Your task to perform on an android device: Empty the shopping cart on target. Search for "usb-a to usb-b" on target, select the first entry, add it to the cart, then select checkout. Image 0: 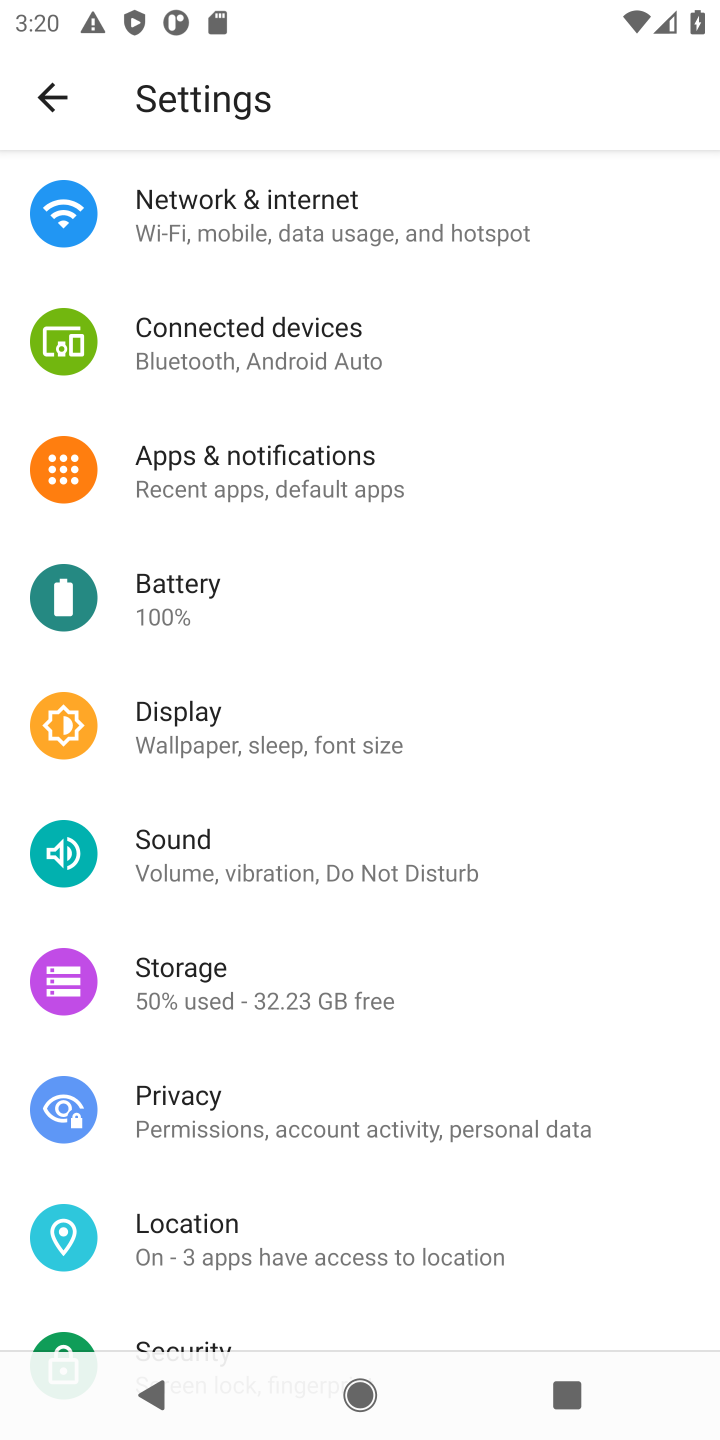
Step 0: press home button
Your task to perform on an android device: Empty the shopping cart on target. Search for "usb-a to usb-b" on target, select the first entry, add it to the cart, then select checkout. Image 1: 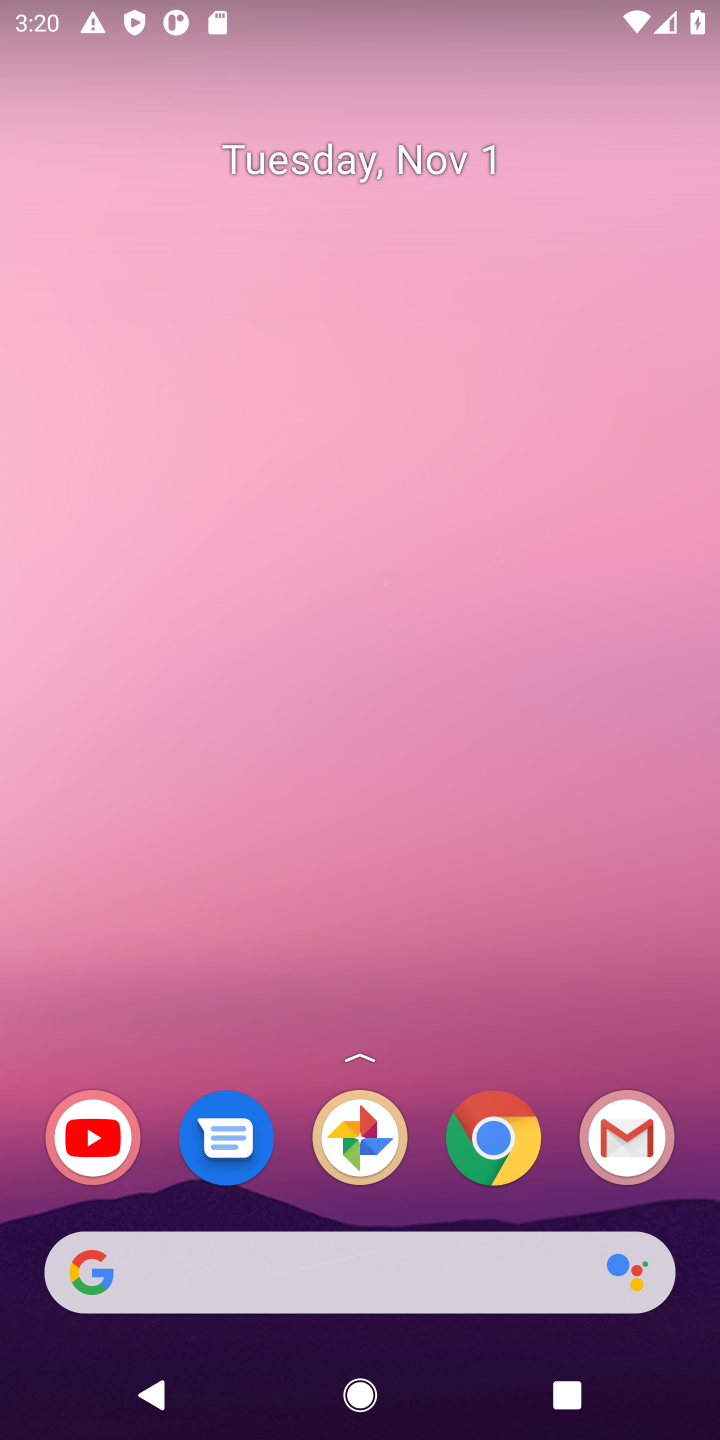
Step 1: click (499, 1139)
Your task to perform on an android device: Empty the shopping cart on target. Search for "usb-a to usb-b" on target, select the first entry, add it to the cart, then select checkout. Image 2: 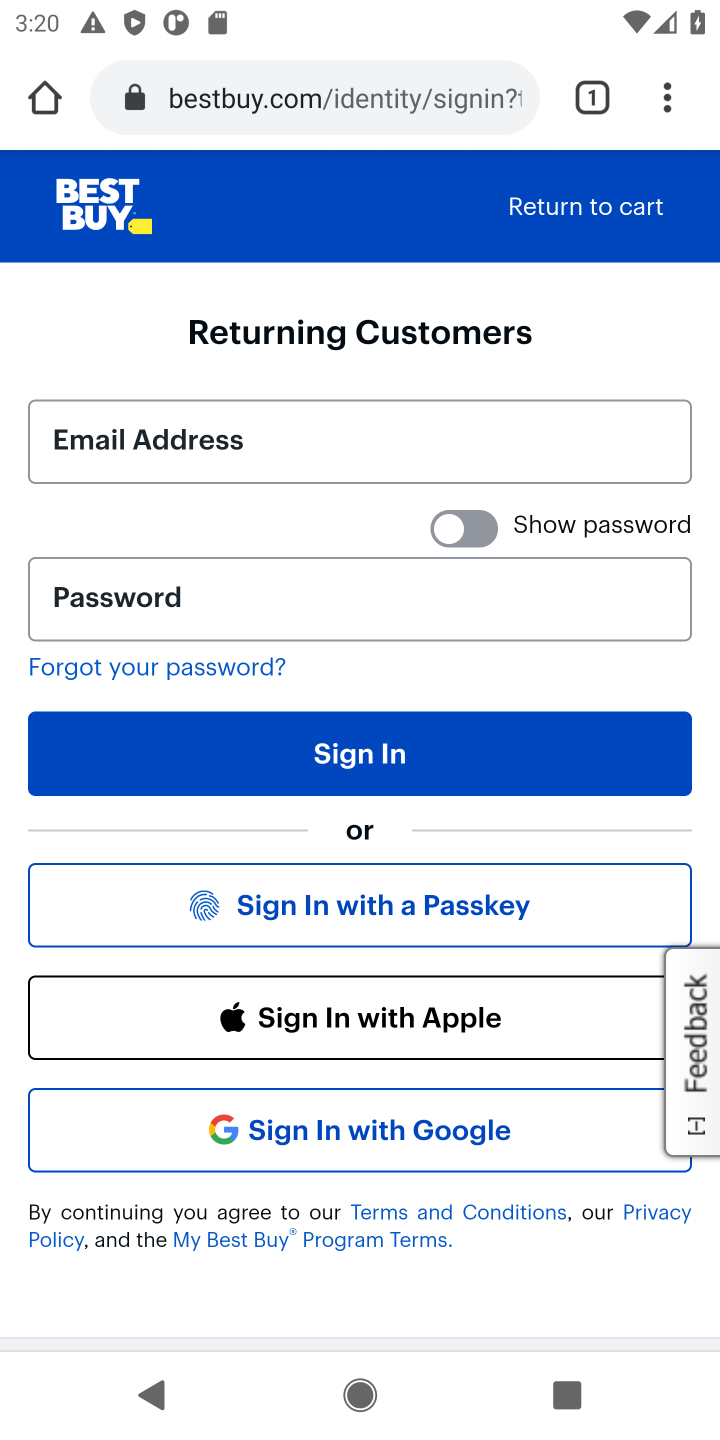
Step 2: click (408, 85)
Your task to perform on an android device: Empty the shopping cart on target. Search for "usb-a to usb-b" on target, select the first entry, add it to the cart, then select checkout. Image 3: 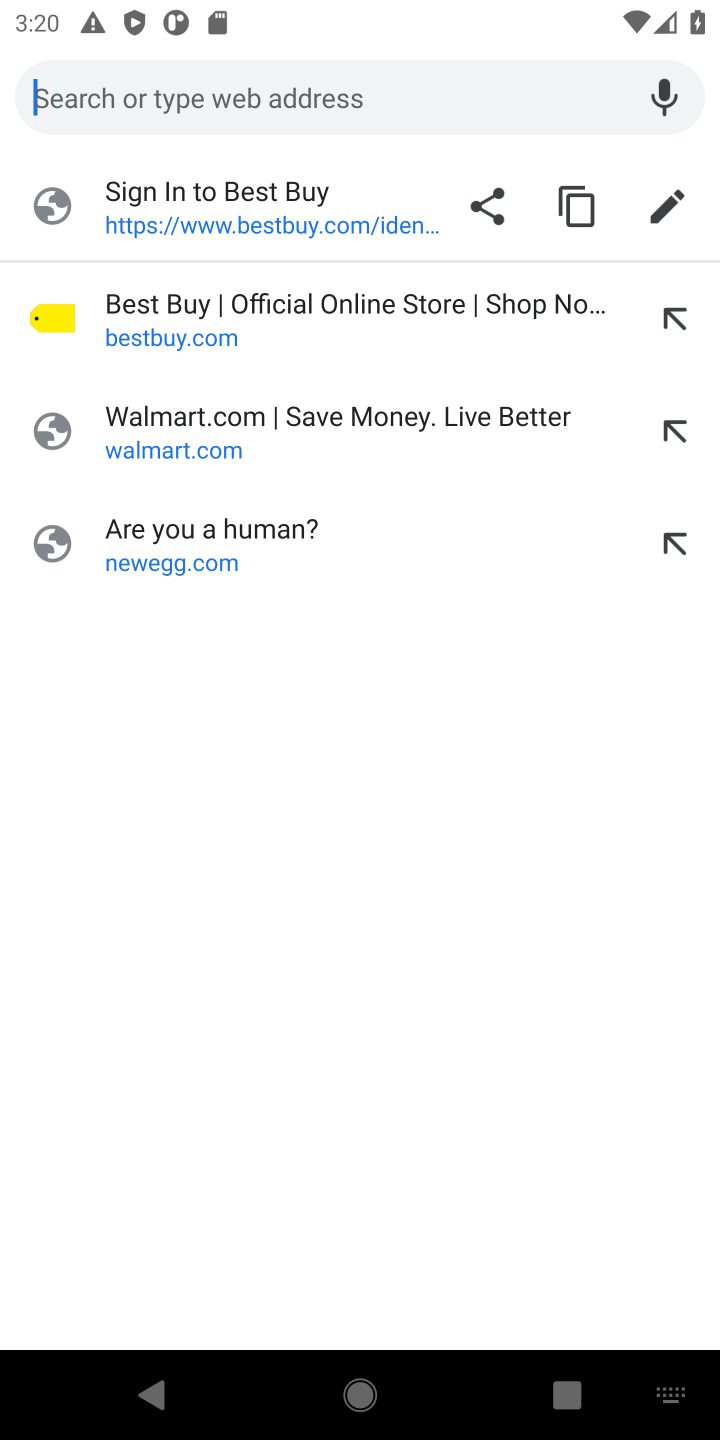
Step 3: type "target"
Your task to perform on an android device: Empty the shopping cart on target. Search for "usb-a to usb-b" on target, select the first entry, add it to the cart, then select checkout. Image 4: 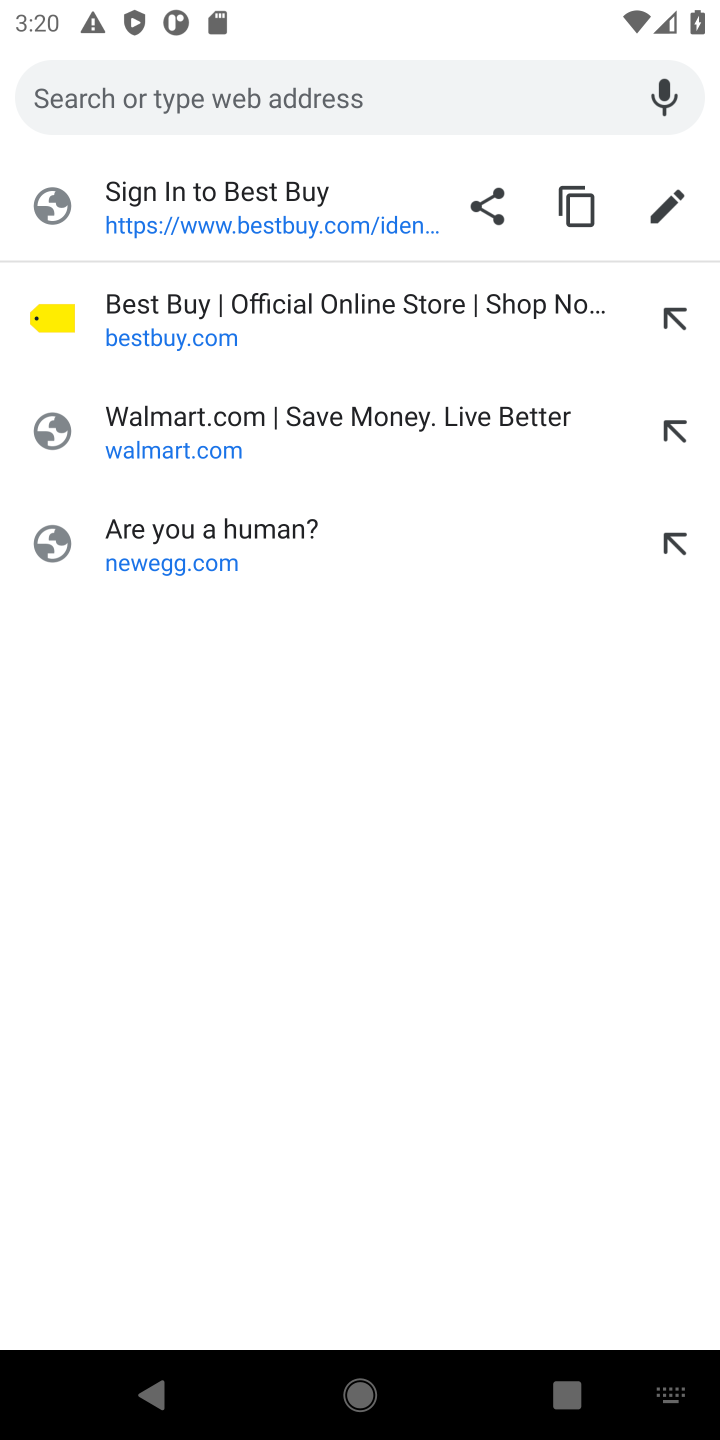
Step 4: click (186, 84)
Your task to perform on an android device: Empty the shopping cart on target. Search for "usb-a to usb-b" on target, select the first entry, add it to the cart, then select checkout. Image 5: 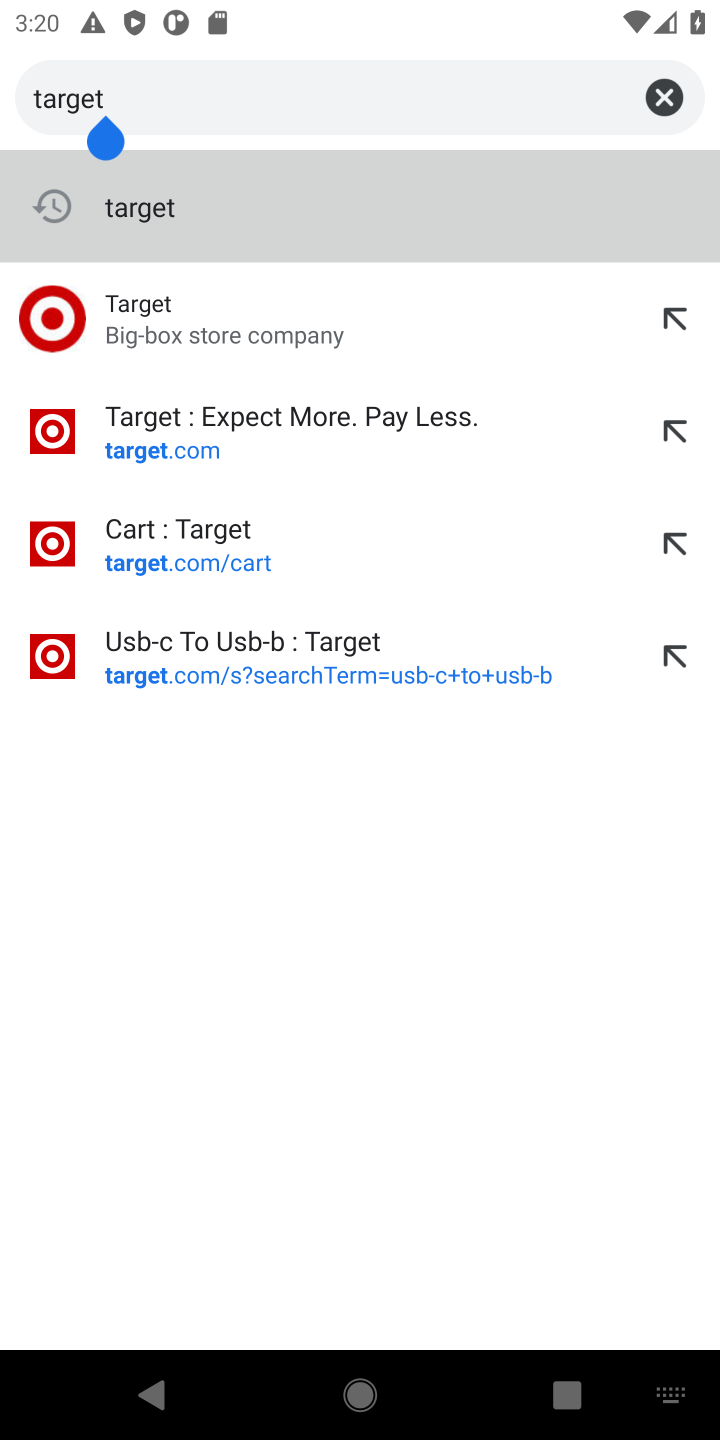
Step 5: click (169, 201)
Your task to perform on an android device: Empty the shopping cart on target. Search for "usb-a to usb-b" on target, select the first entry, add it to the cart, then select checkout. Image 6: 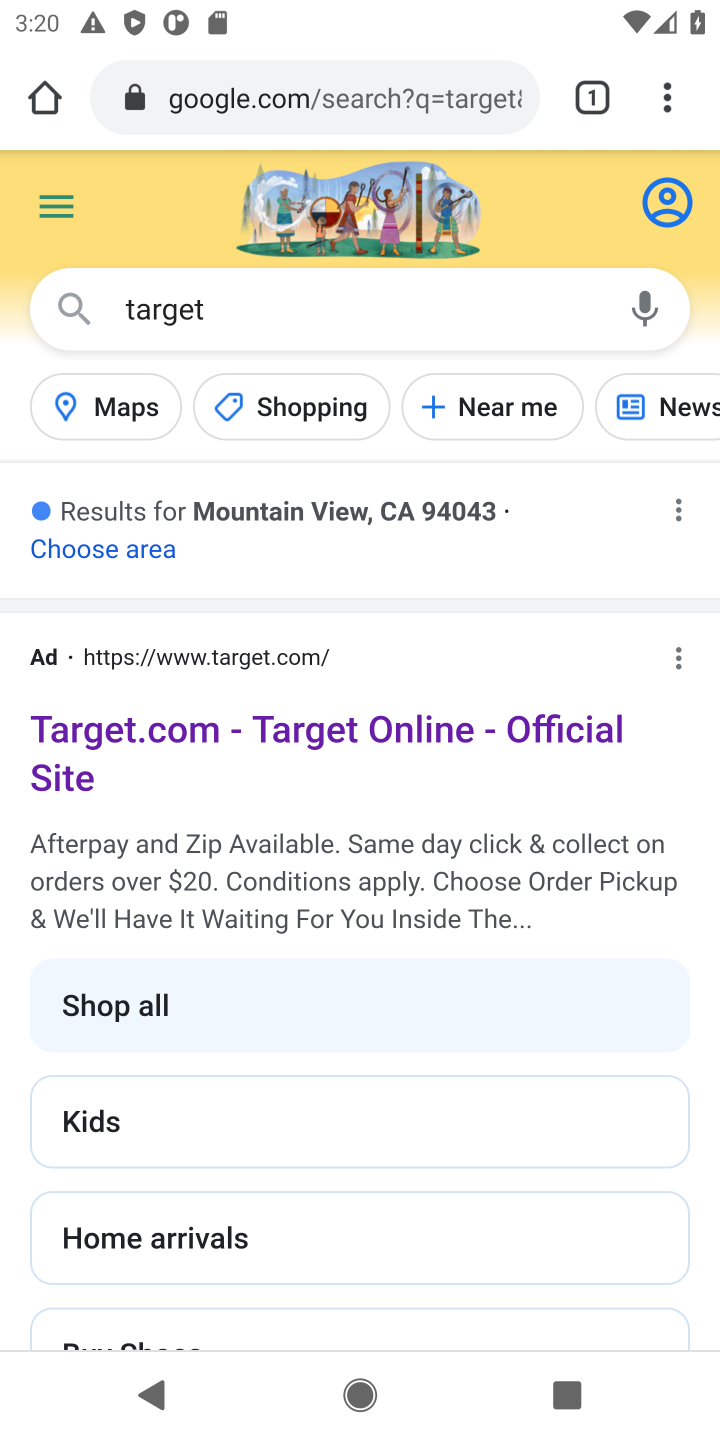
Step 6: click (335, 750)
Your task to perform on an android device: Empty the shopping cart on target. Search for "usb-a to usb-b" on target, select the first entry, add it to the cart, then select checkout. Image 7: 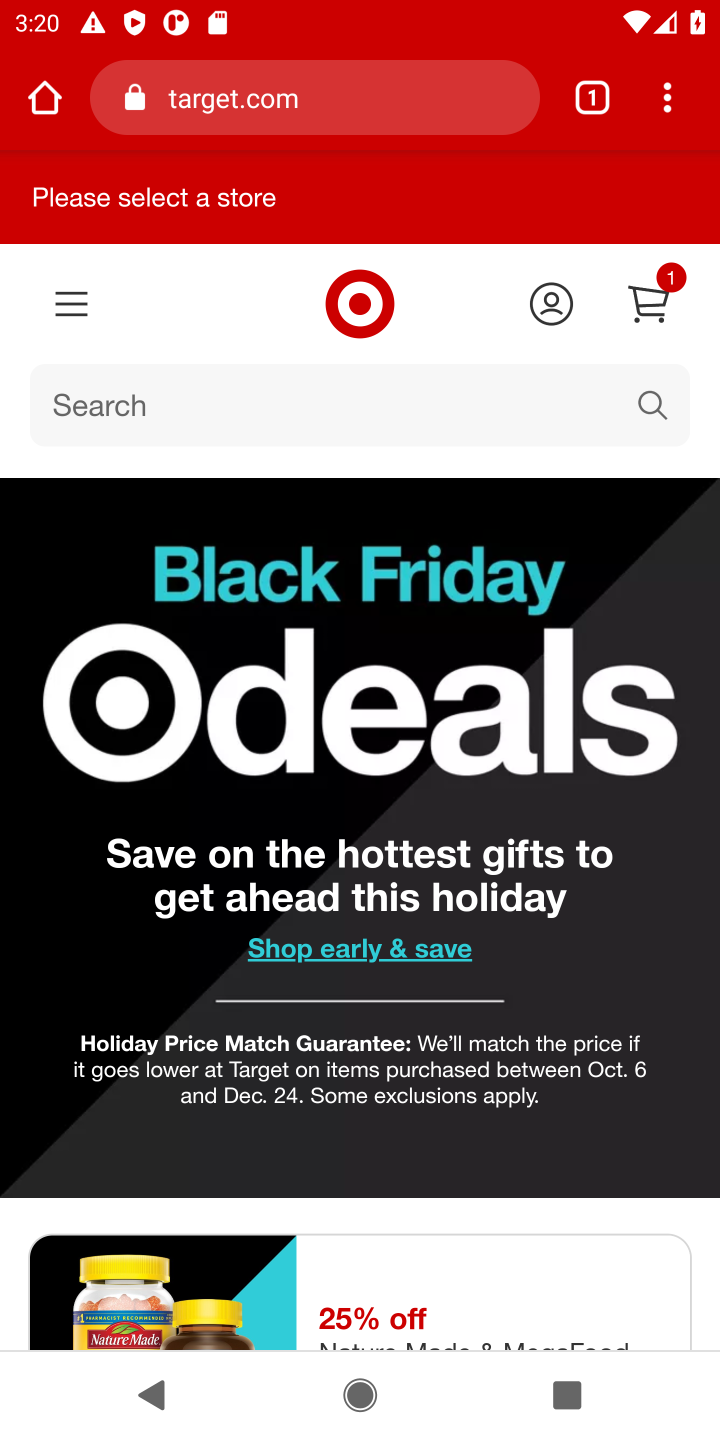
Step 7: click (328, 404)
Your task to perform on an android device: Empty the shopping cart on target. Search for "usb-a to usb-b" on target, select the first entry, add it to the cart, then select checkout. Image 8: 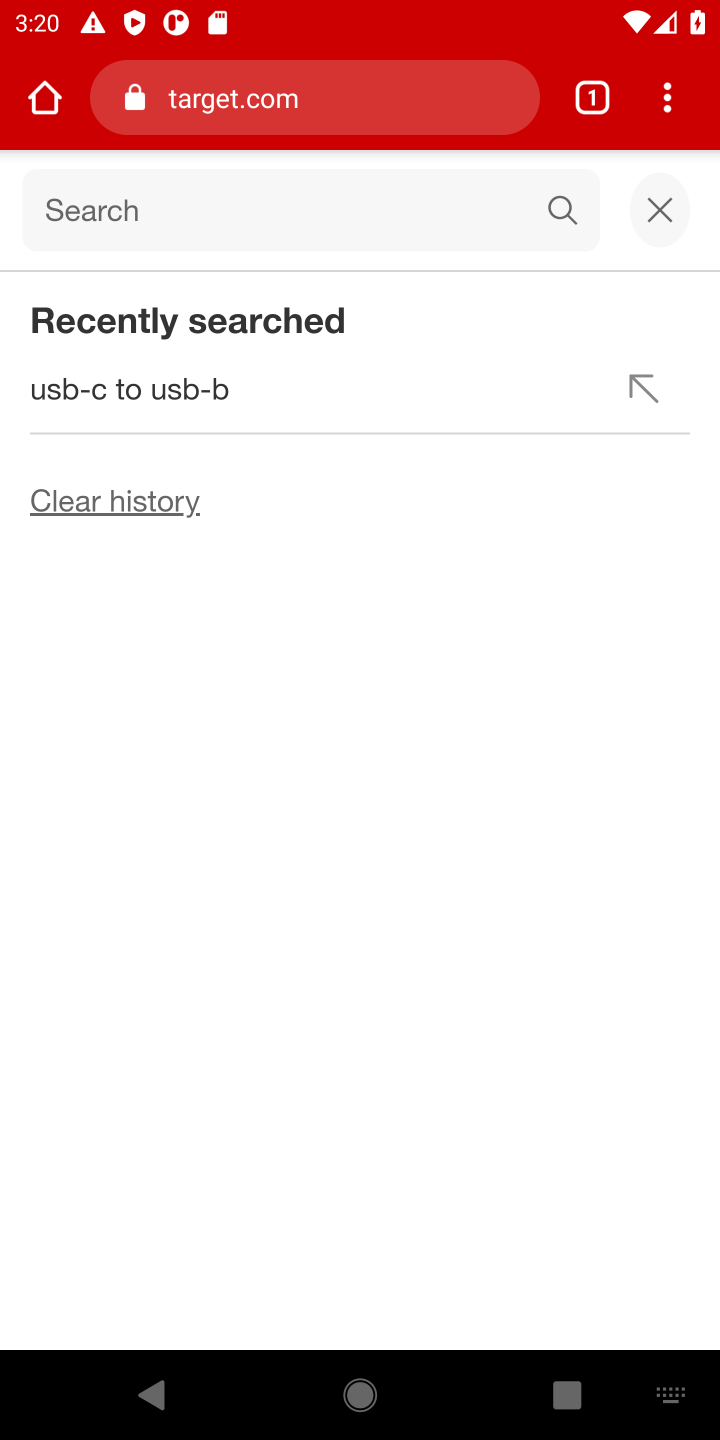
Step 8: type "usb-a to usb-b"
Your task to perform on an android device: Empty the shopping cart on target. Search for "usb-a to usb-b" on target, select the first entry, add it to the cart, then select checkout. Image 9: 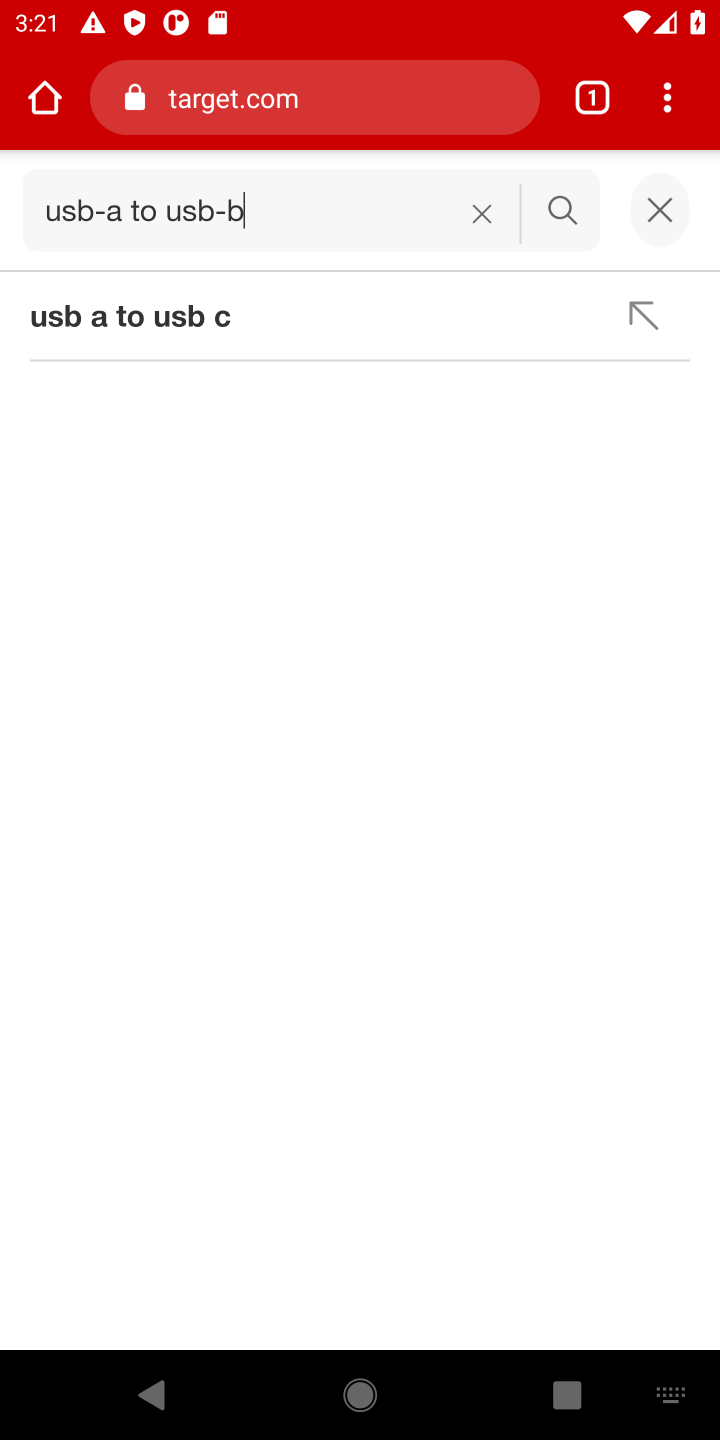
Step 9: click (562, 207)
Your task to perform on an android device: Empty the shopping cart on target. Search for "usb-a to usb-b" on target, select the first entry, add it to the cart, then select checkout. Image 10: 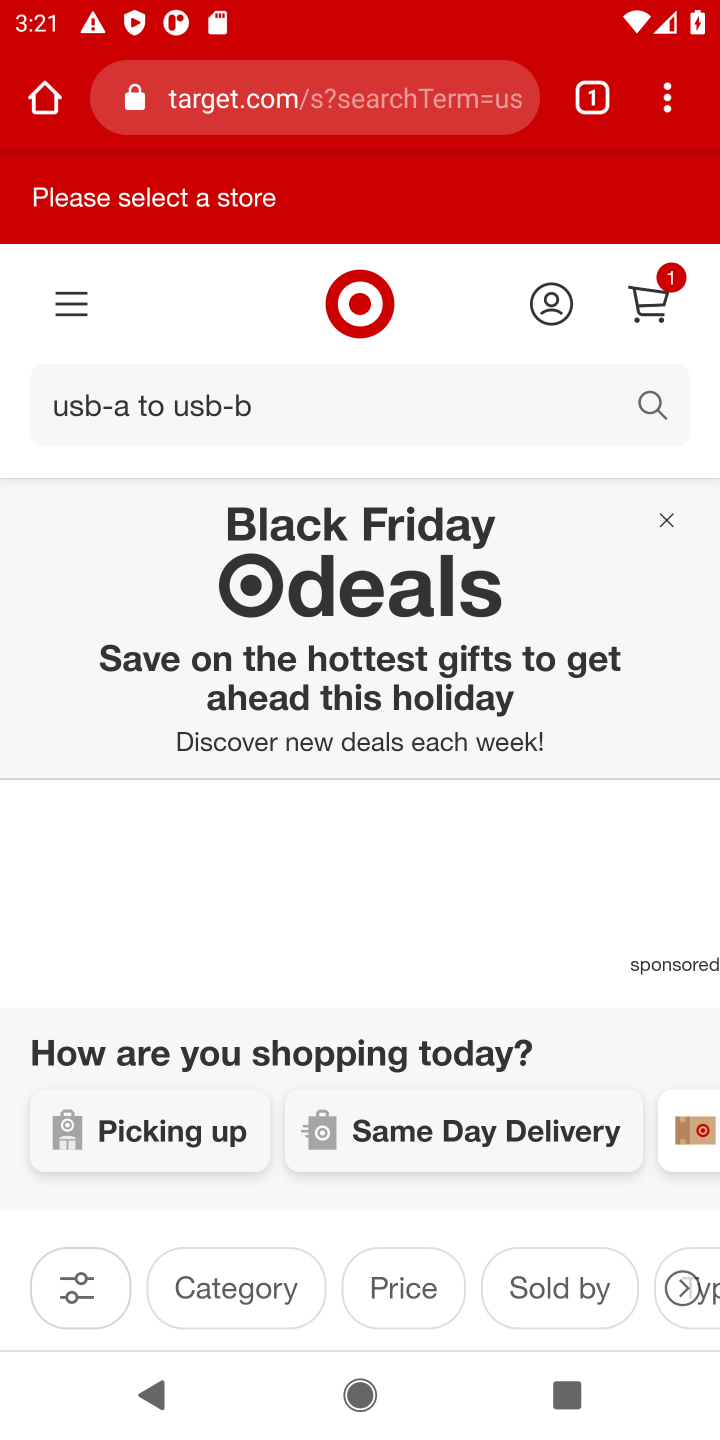
Step 10: click (644, 287)
Your task to perform on an android device: Empty the shopping cart on target. Search for "usb-a to usb-b" on target, select the first entry, add it to the cart, then select checkout. Image 11: 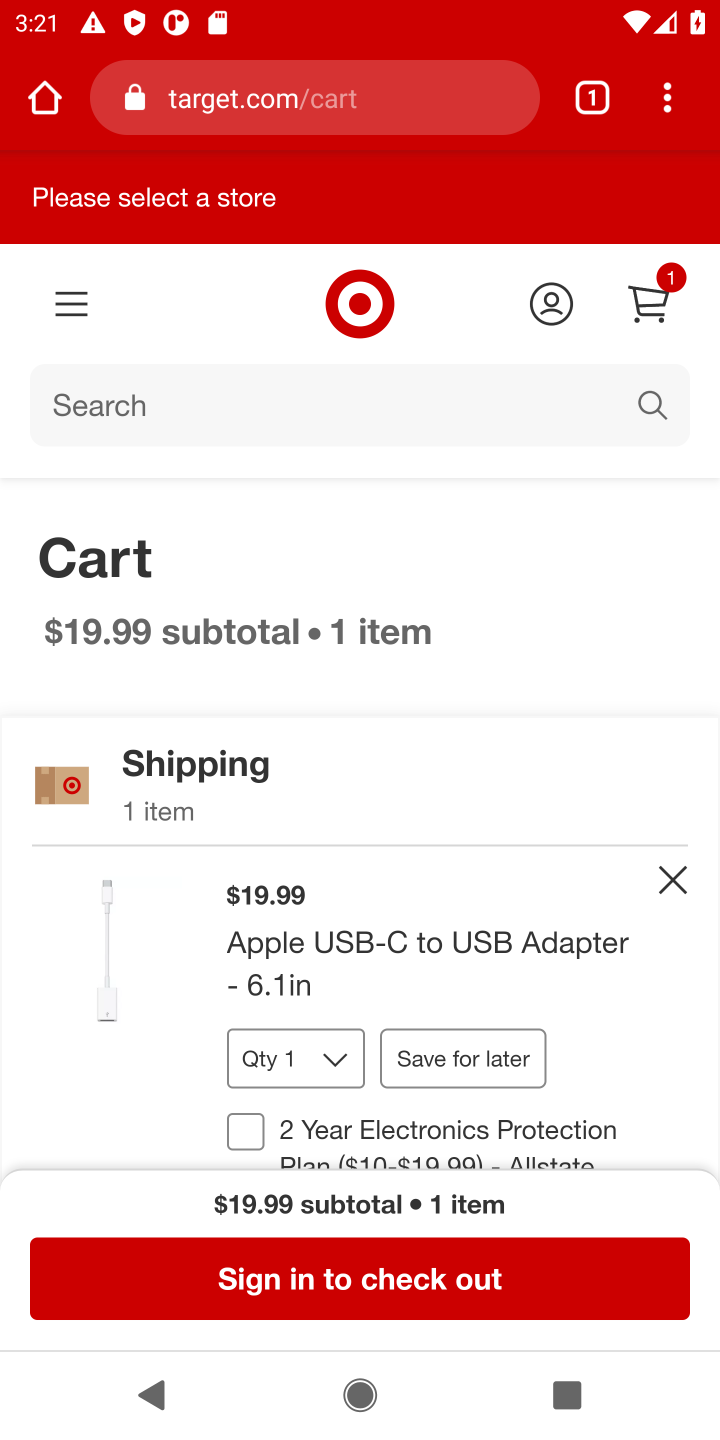
Step 11: click (671, 883)
Your task to perform on an android device: Empty the shopping cart on target. Search for "usb-a to usb-b" on target, select the first entry, add it to the cart, then select checkout. Image 12: 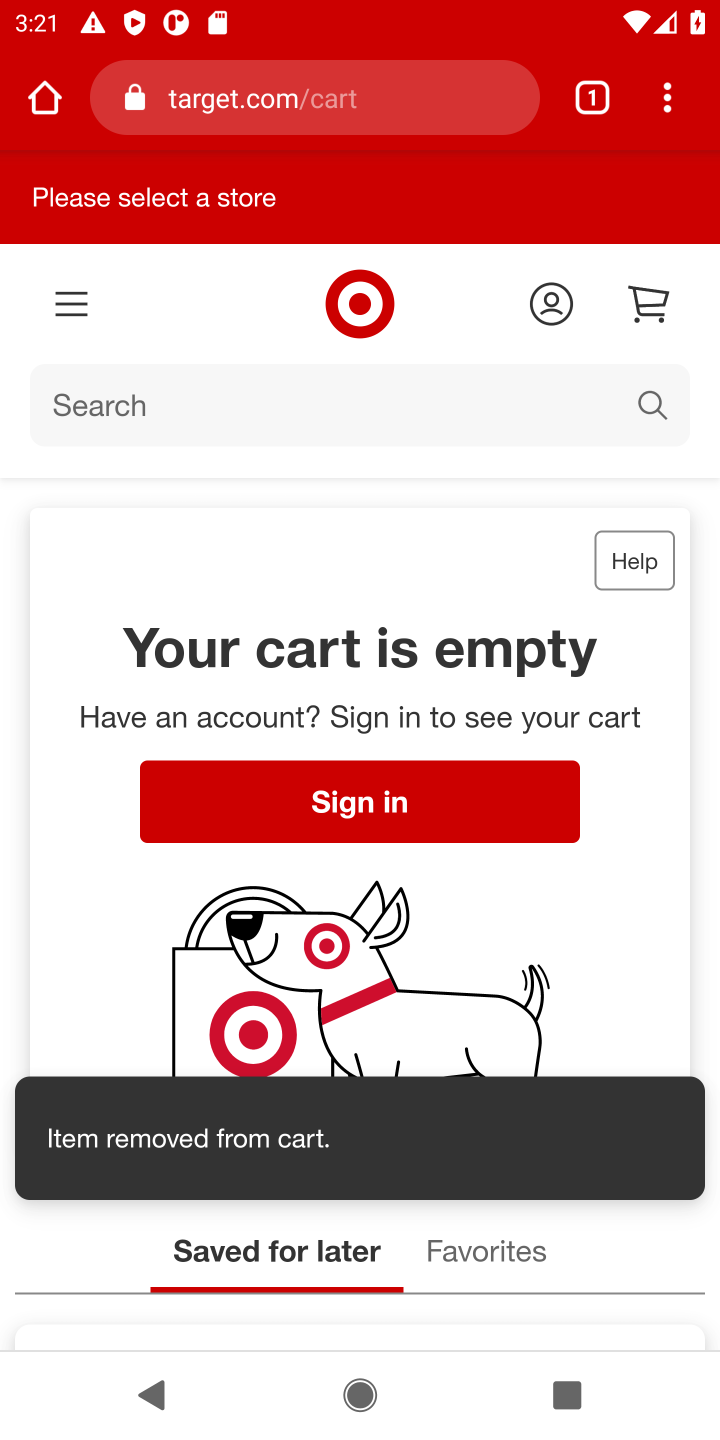
Step 12: click (236, 402)
Your task to perform on an android device: Empty the shopping cart on target. Search for "usb-a to usb-b" on target, select the first entry, add it to the cart, then select checkout. Image 13: 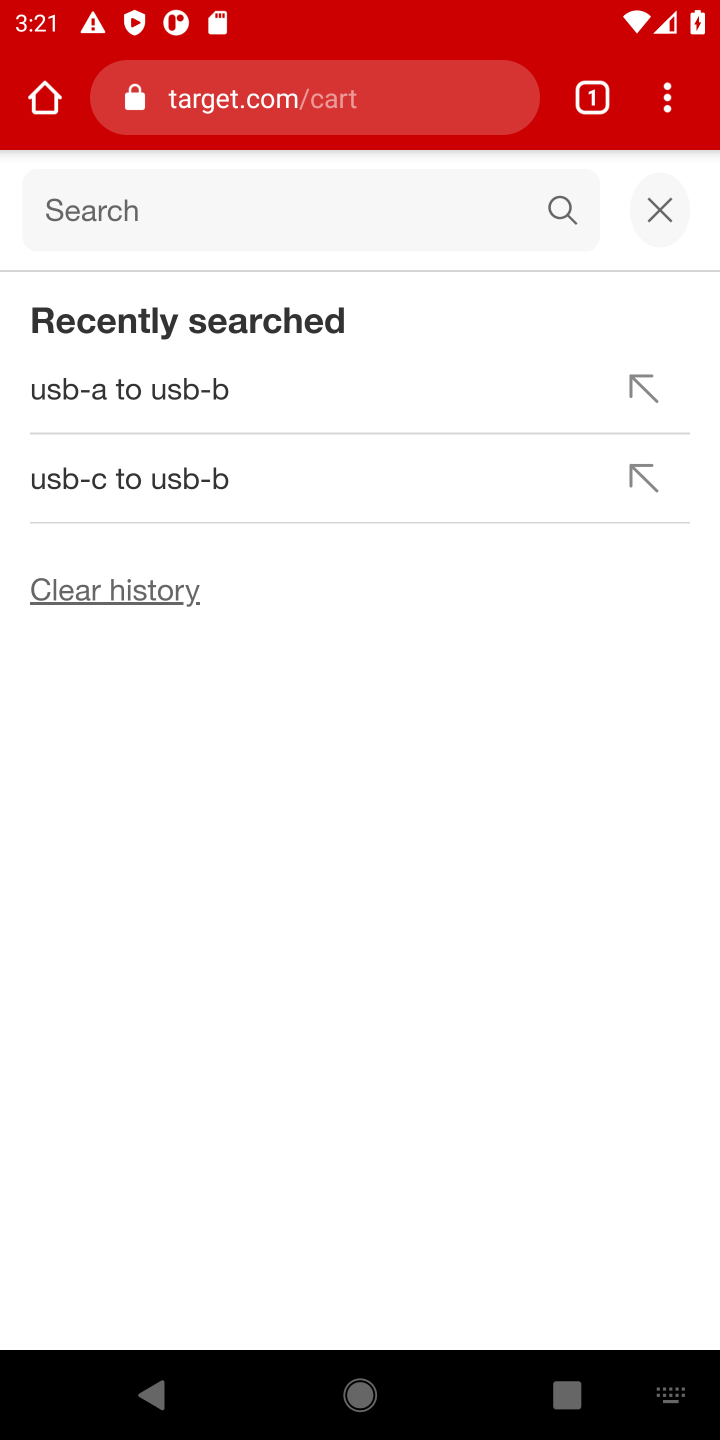
Step 13: type "usb-a to usb-b"
Your task to perform on an android device: Empty the shopping cart on target. Search for "usb-a to usb-b" on target, select the first entry, add it to the cart, then select checkout. Image 14: 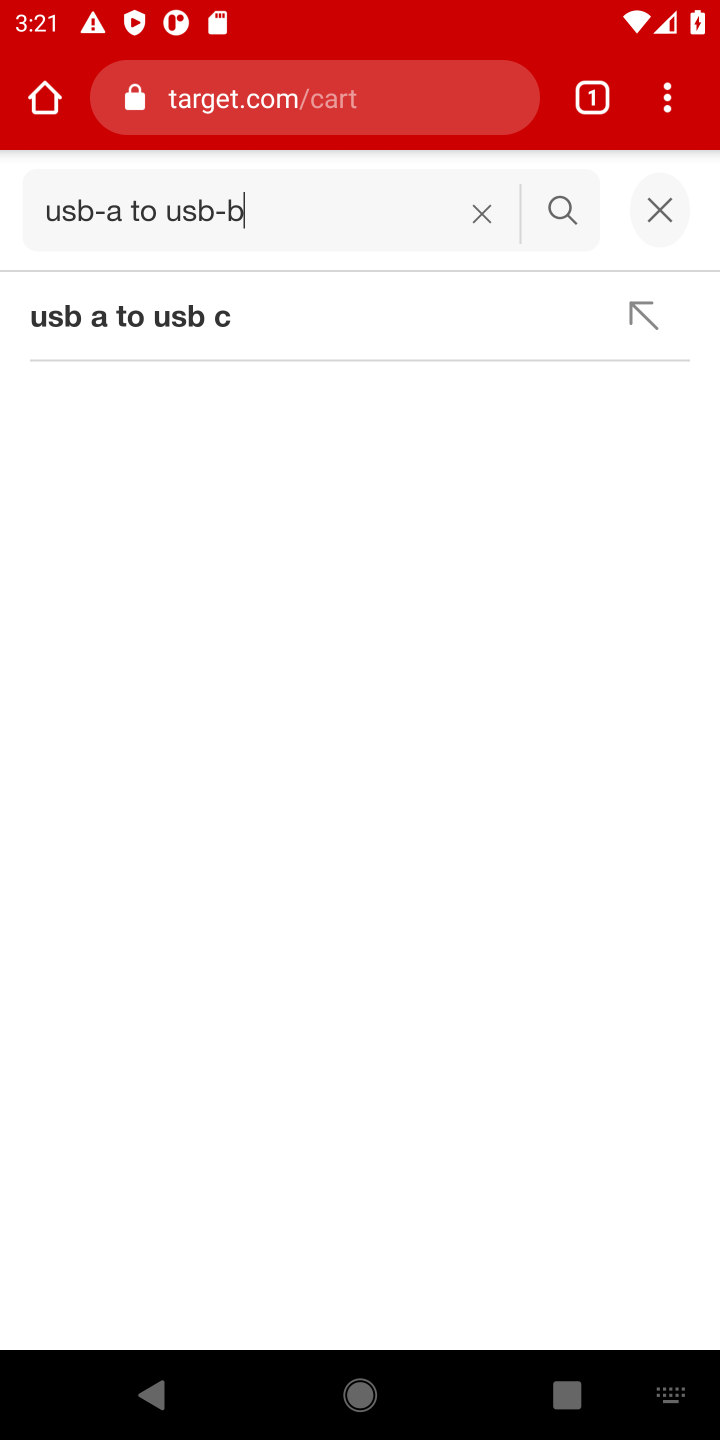
Step 14: click (230, 322)
Your task to perform on an android device: Empty the shopping cart on target. Search for "usb-a to usb-b" on target, select the first entry, add it to the cart, then select checkout. Image 15: 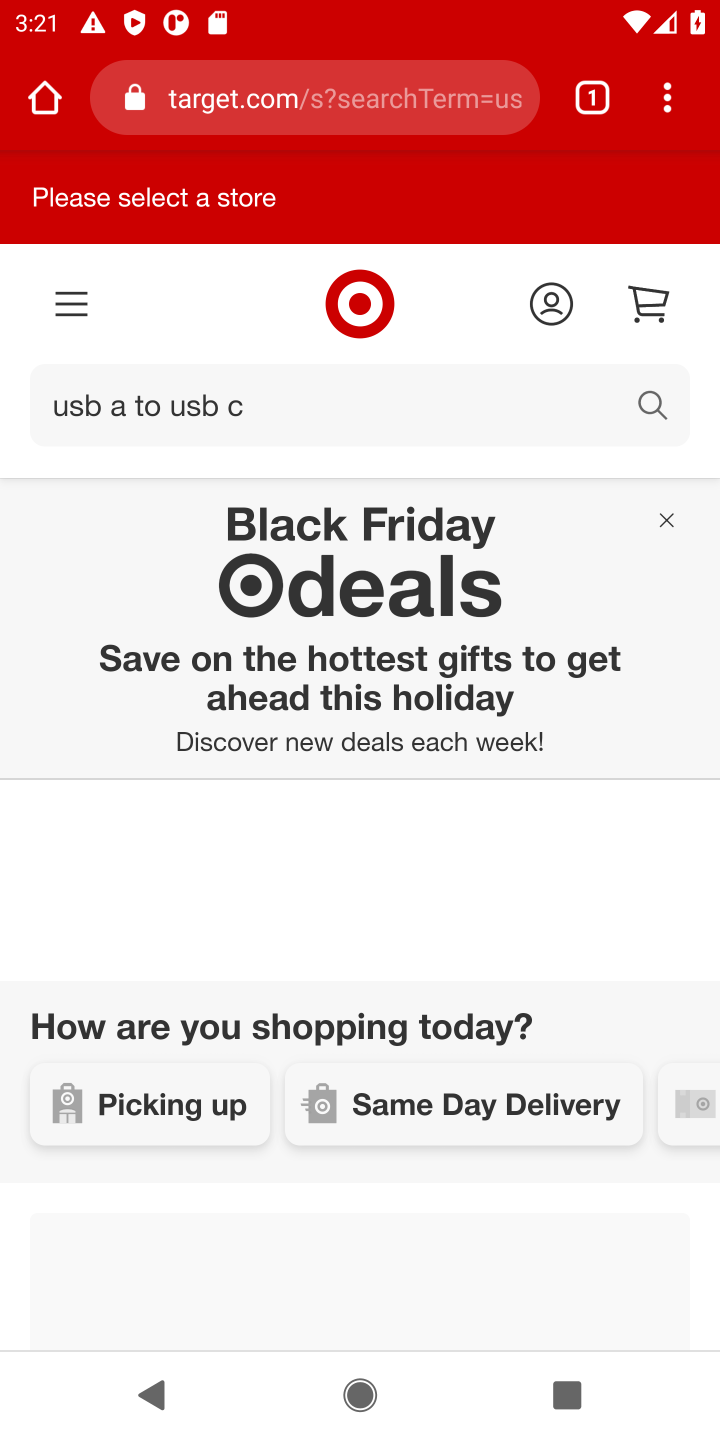
Step 15: drag from (461, 1073) to (471, 704)
Your task to perform on an android device: Empty the shopping cart on target. Search for "usb-a to usb-b" on target, select the first entry, add it to the cart, then select checkout. Image 16: 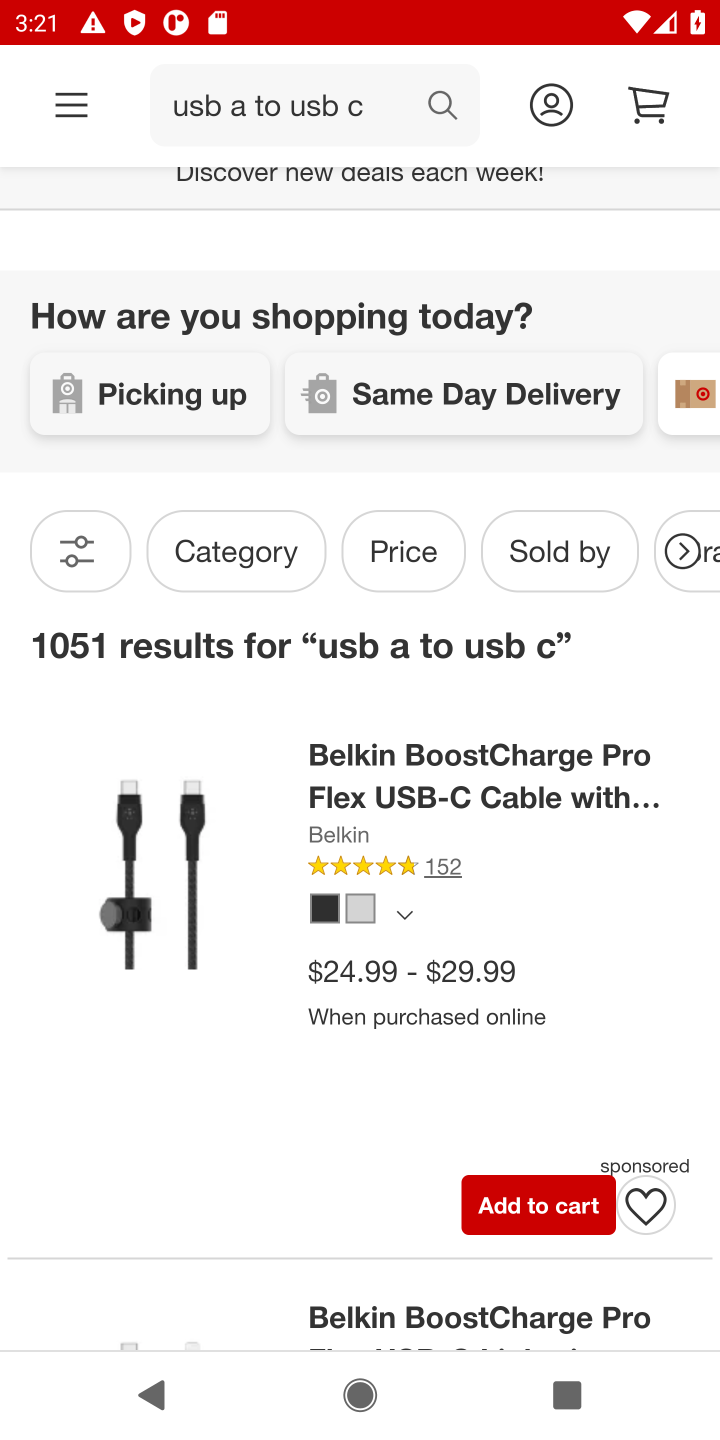
Step 16: drag from (265, 1034) to (261, 909)
Your task to perform on an android device: Empty the shopping cart on target. Search for "usb-a to usb-b" on target, select the first entry, add it to the cart, then select checkout. Image 17: 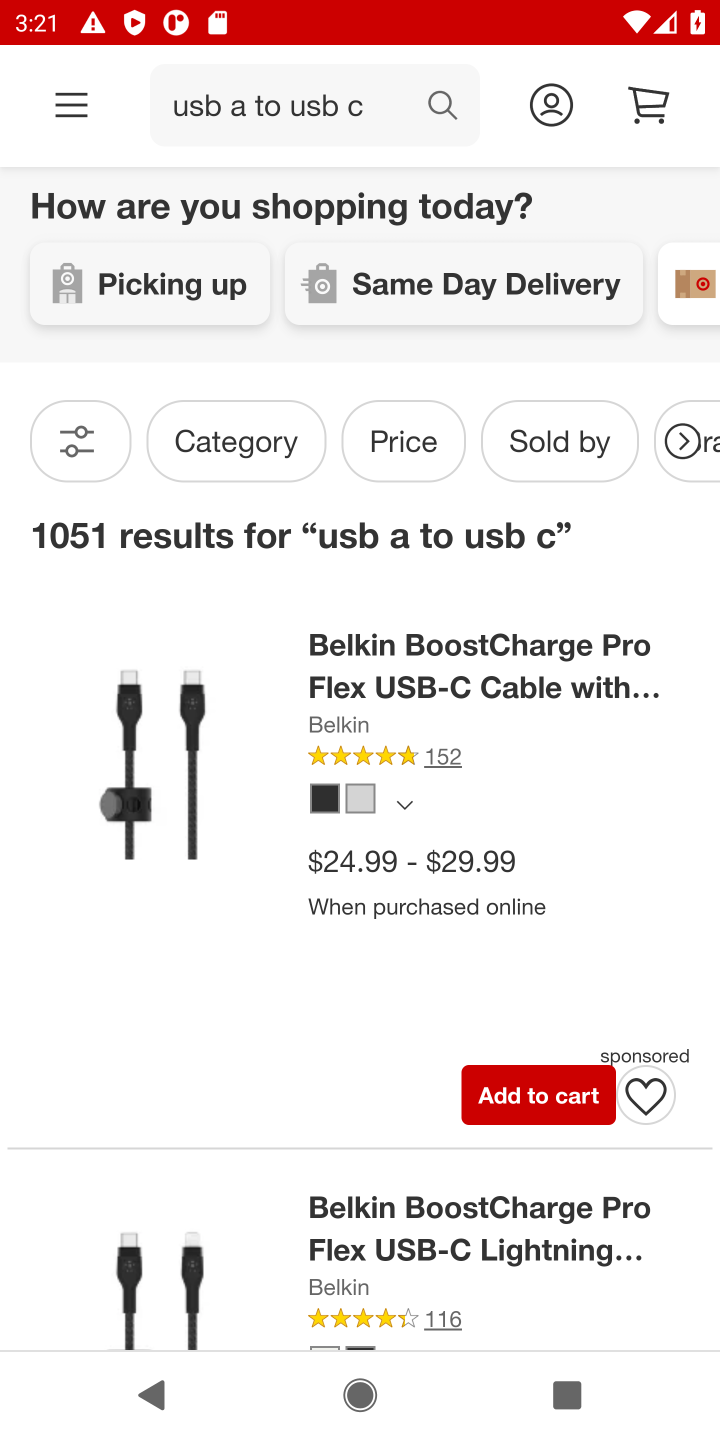
Step 17: drag from (317, 1211) to (356, 872)
Your task to perform on an android device: Empty the shopping cart on target. Search for "usb-a to usb-b" on target, select the first entry, add it to the cart, then select checkout. Image 18: 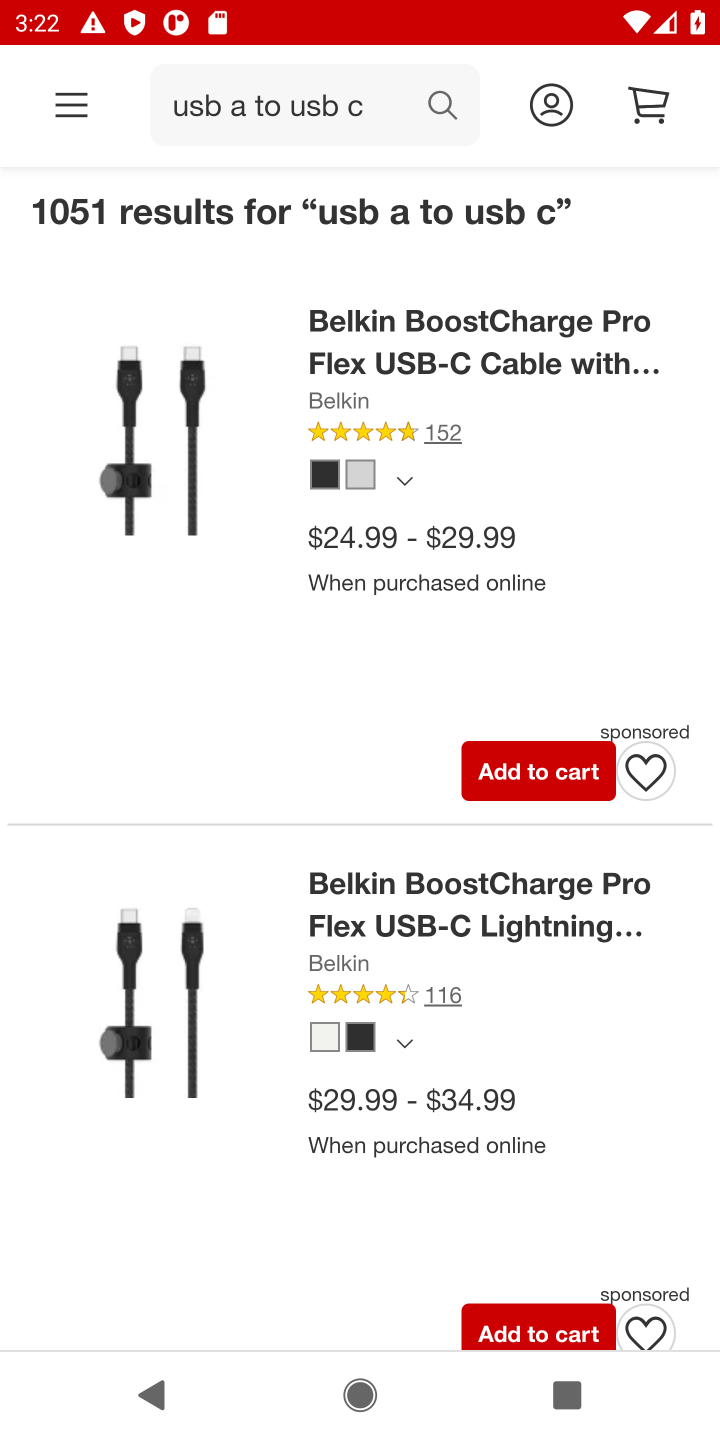
Step 18: click (486, 750)
Your task to perform on an android device: Empty the shopping cart on target. Search for "usb-a to usb-b" on target, select the first entry, add it to the cart, then select checkout. Image 19: 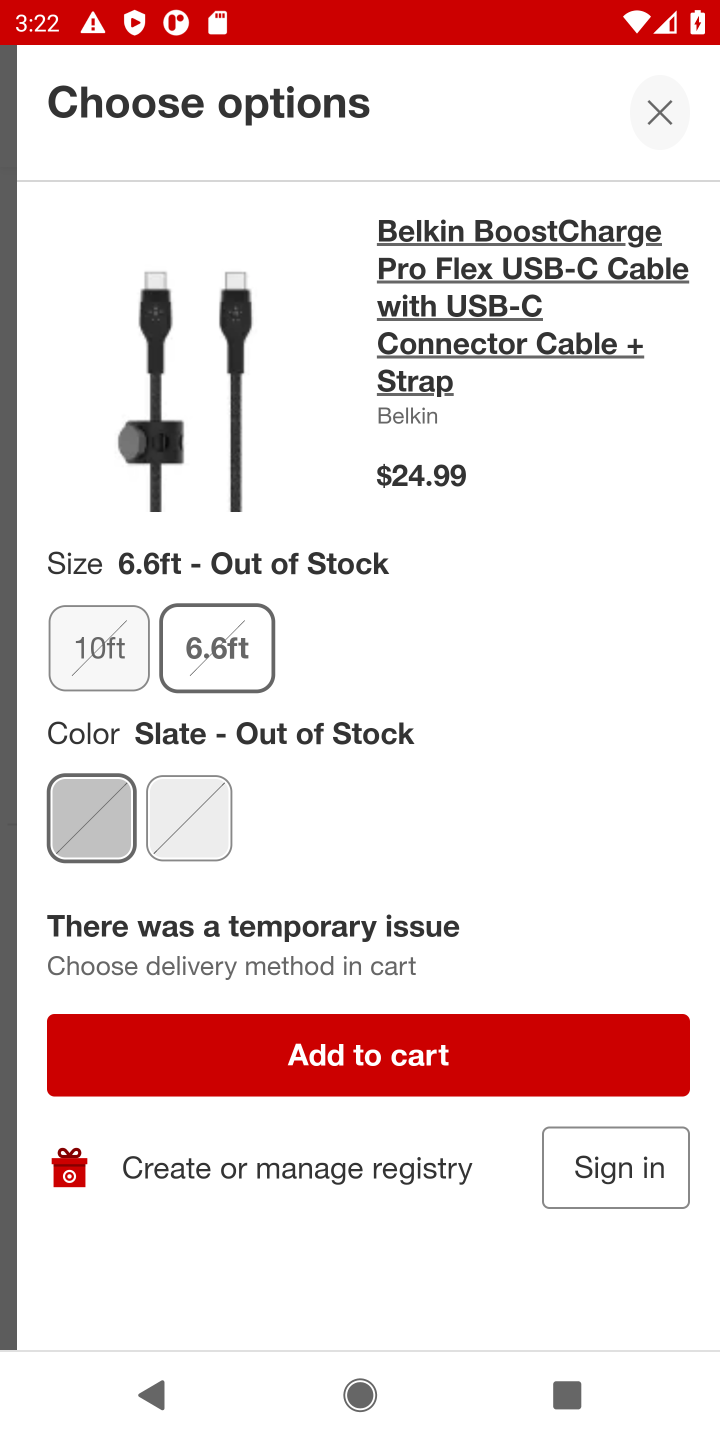
Step 19: click (402, 1054)
Your task to perform on an android device: Empty the shopping cart on target. Search for "usb-a to usb-b" on target, select the first entry, add it to the cart, then select checkout. Image 20: 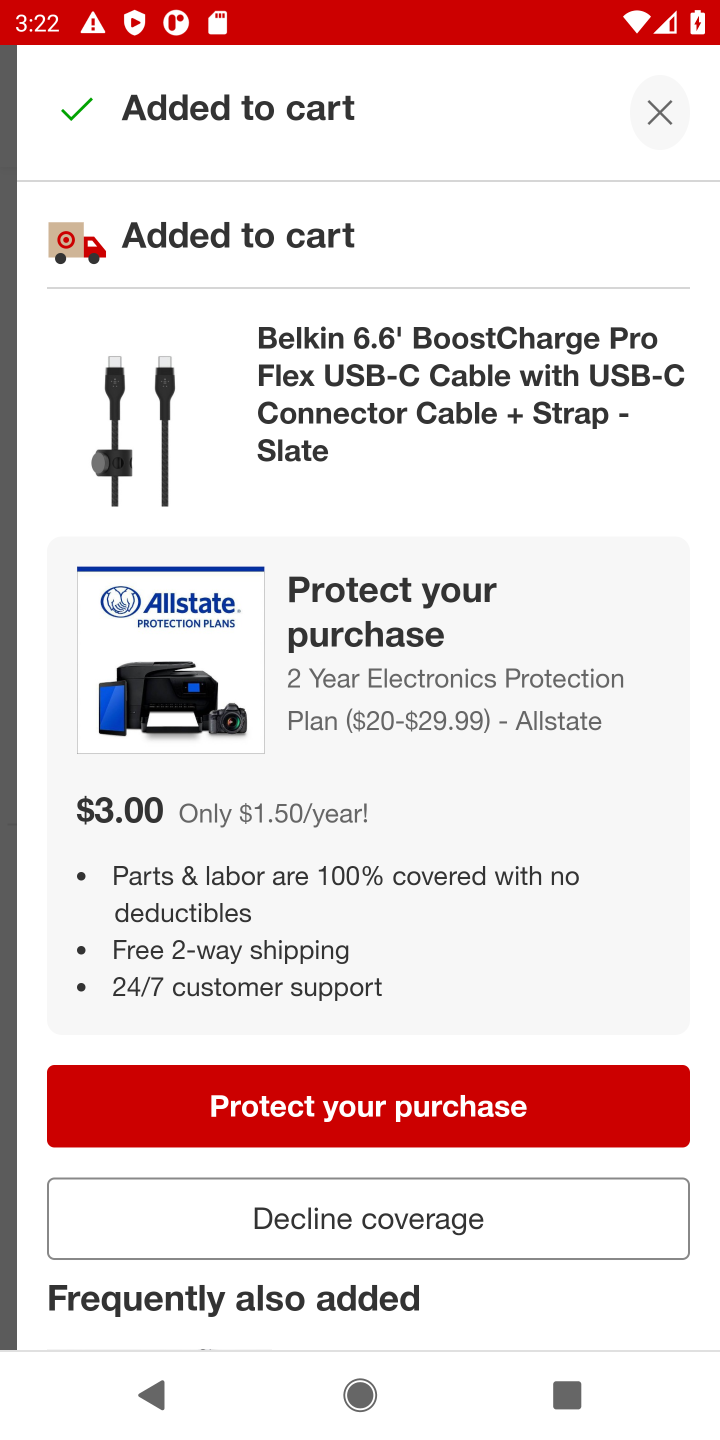
Step 20: click (390, 1218)
Your task to perform on an android device: Empty the shopping cart on target. Search for "usb-a to usb-b" on target, select the first entry, add it to the cart, then select checkout. Image 21: 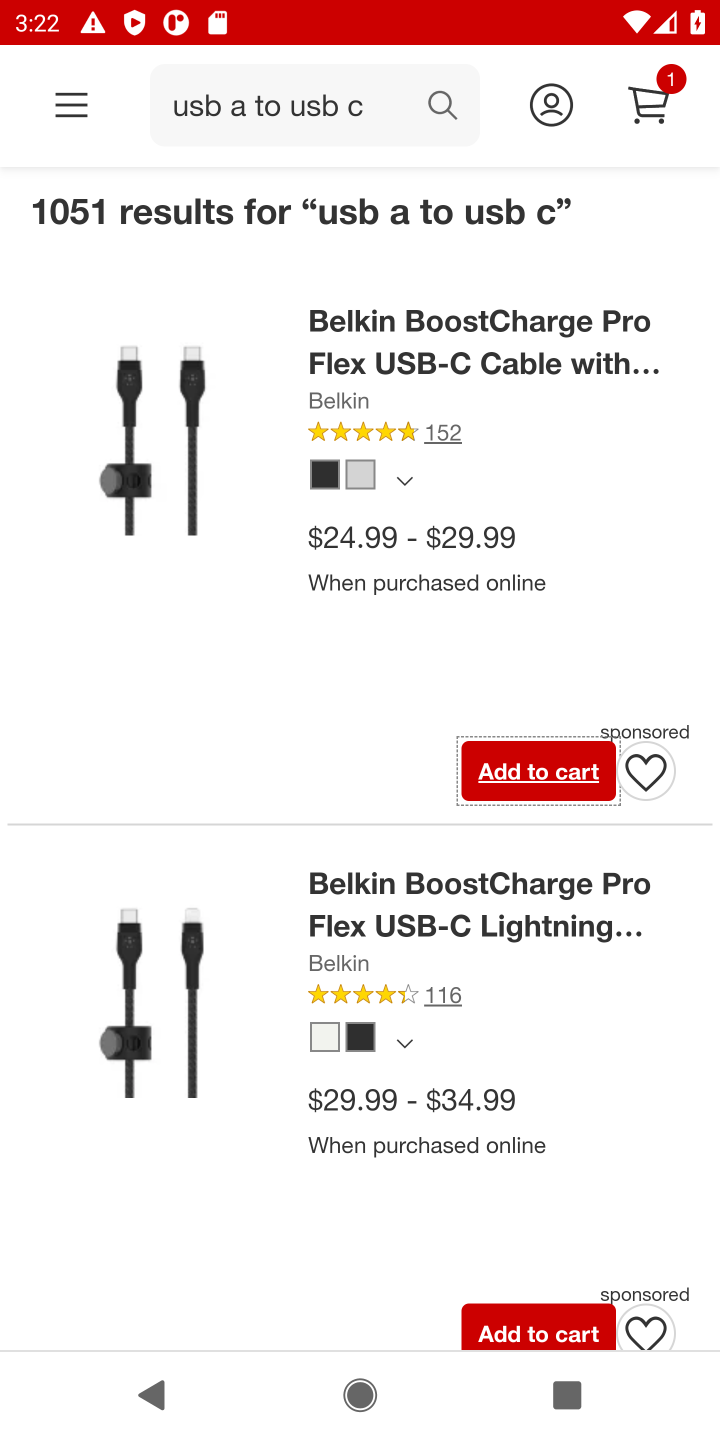
Step 21: click (653, 86)
Your task to perform on an android device: Empty the shopping cart on target. Search for "usb-a to usb-b" on target, select the first entry, add it to the cart, then select checkout. Image 22: 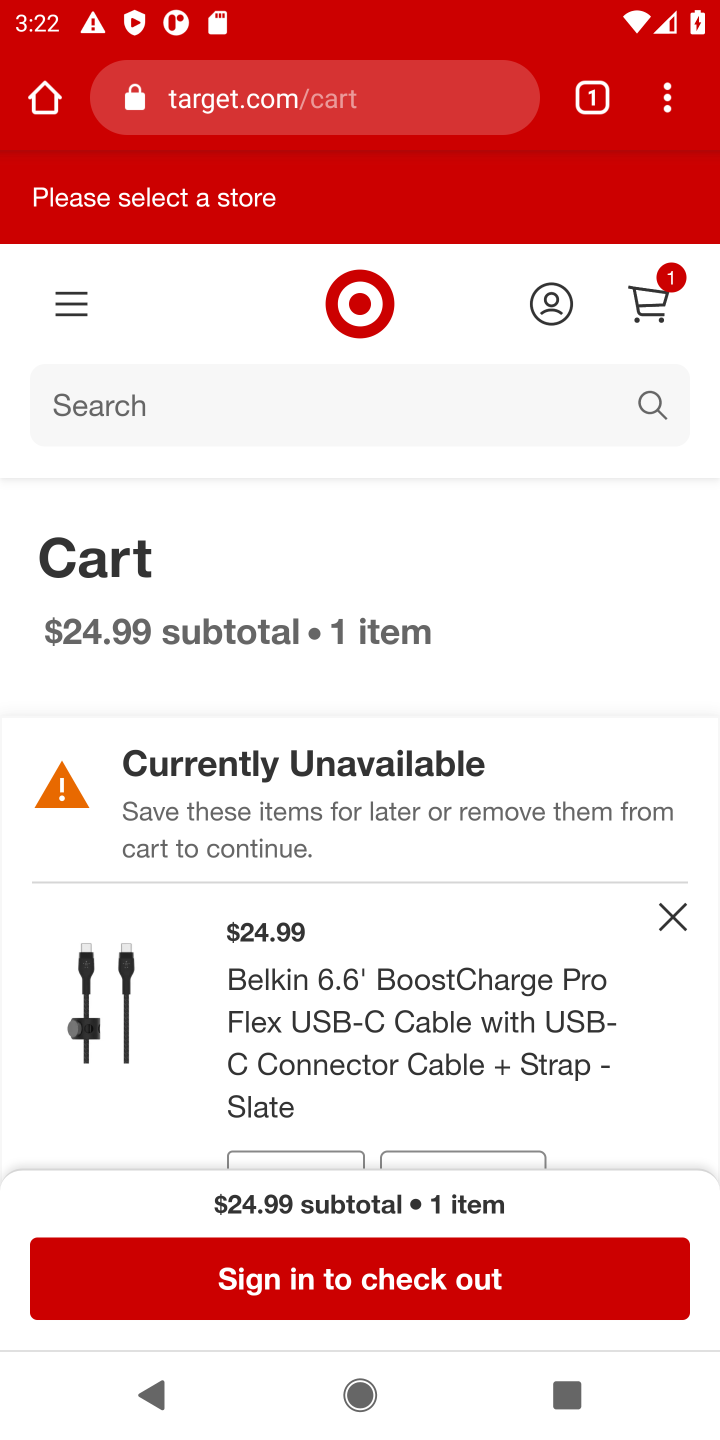
Step 22: click (366, 1291)
Your task to perform on an android device: Empty the shopping cart on target. Search for "usb-a to usb-b" on target, select the first entry, add it to the cart, then select checkout. Image 23: 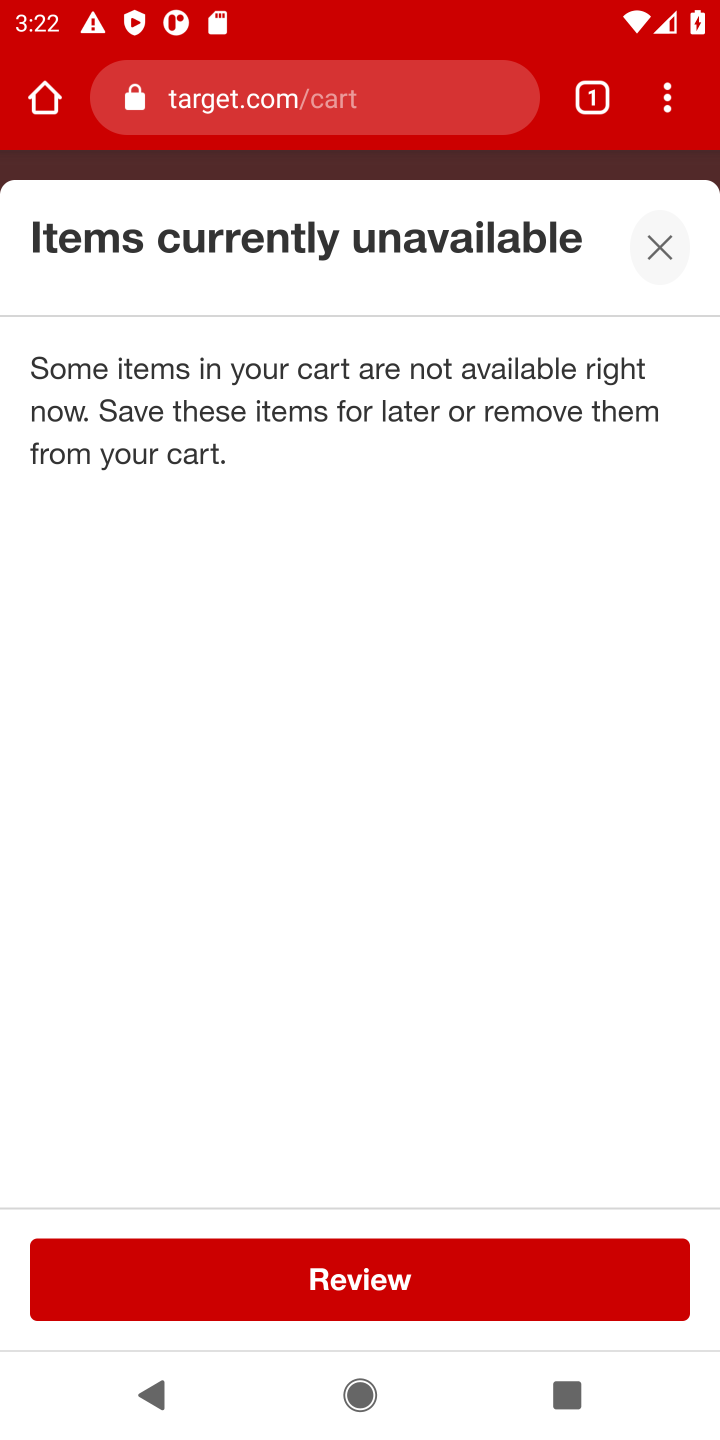
Step 23: task complete